Your task to perform on an android device: turn off data saver in the chrome app Image 0: 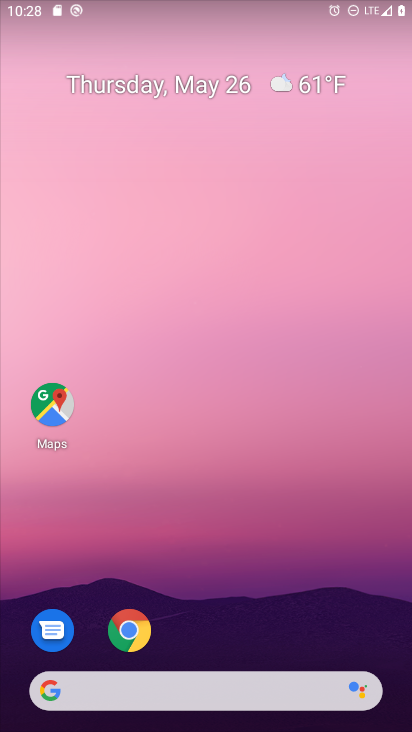
Step 0: drag from (221, 660) to (362, 7)
Your task to perform on an android device: turn off data saver in the chrome app Image 1: 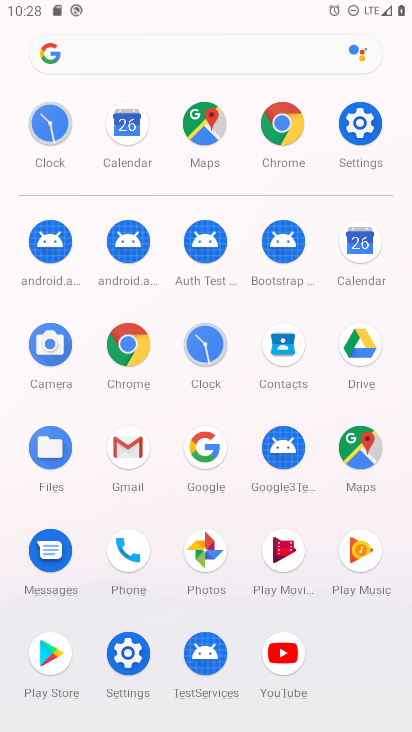
Step 1: click (142, 340)
Your task to perform on an android device: turn off data saver in the chrome app Image 2: 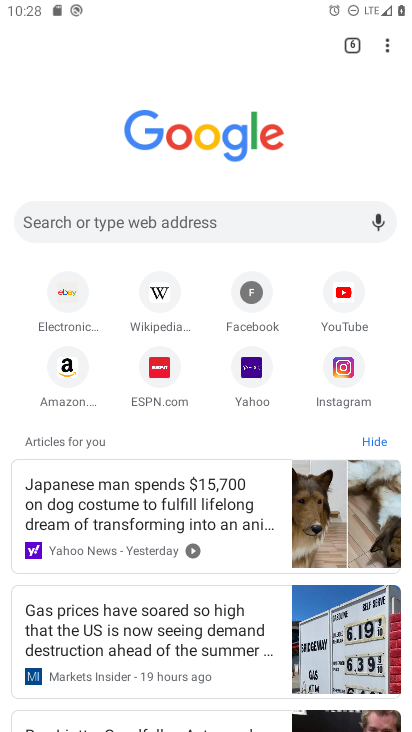
Step 2: click (389, 50)
Your task to perform on an android device: turn off data saver in the chrome app Image 3: 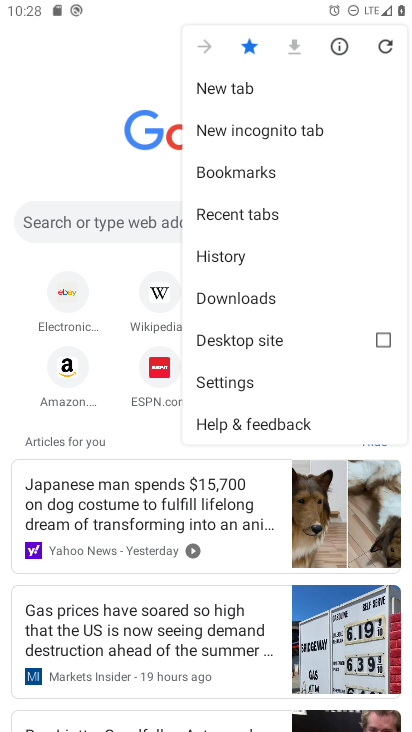
Step 3: click (204, 371)
Your task to perform on an android device: turn off data saver in the chrome app Image 4: 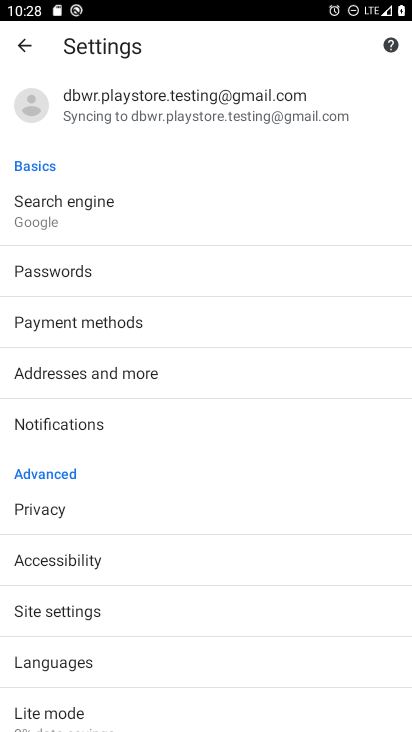
Step 4: click (32, 697)
Your task to perform on an android device: turn off data saver in the chrome app Image 5: 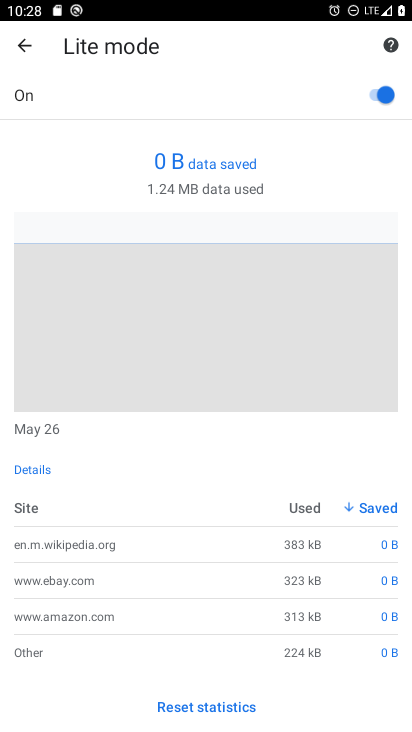
Step 5: click (373, 98)
Your task to perform on an android device: turn off data saver in the chrome app Image 6: 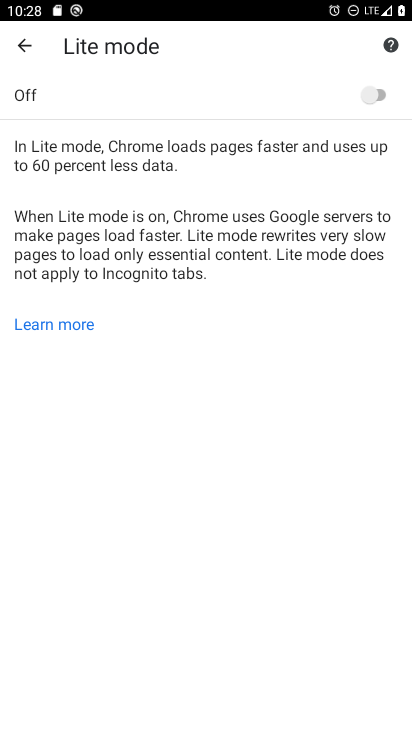
Step 6: task complete